Your task to perform on an android device: Open the map Image 0: 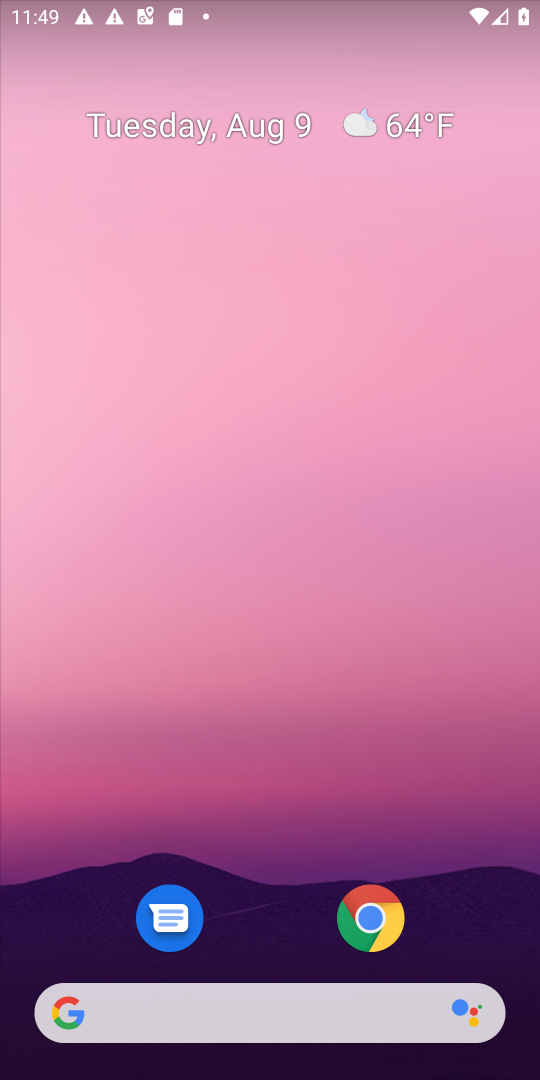
Step 0: drag from (278, 821) to (376, 178)
Your task to perform on an android device: Open the map Image 1: 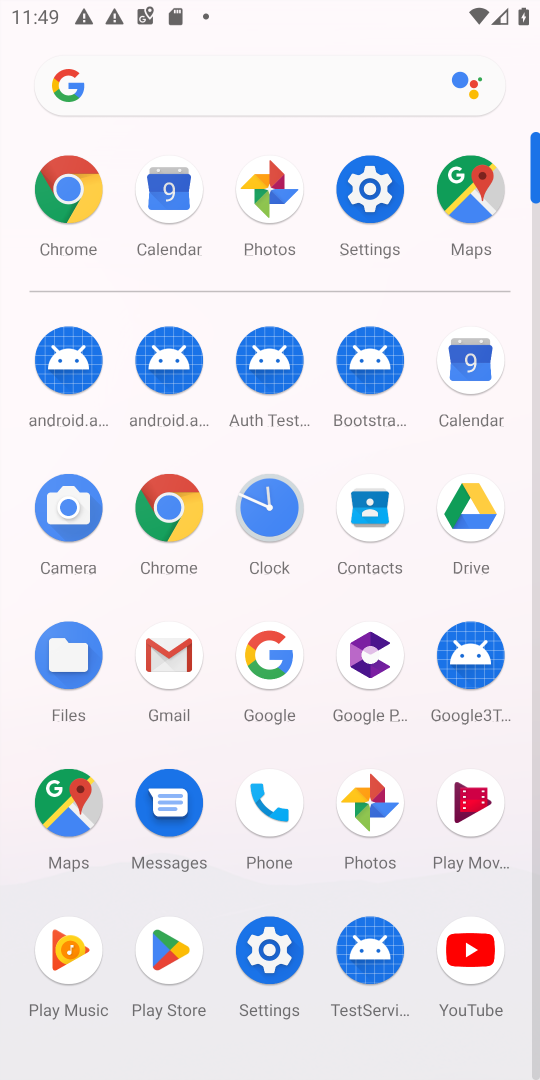
Step 1: click (61, 799)
Your task to perform on an android device: Open the map Image 2: 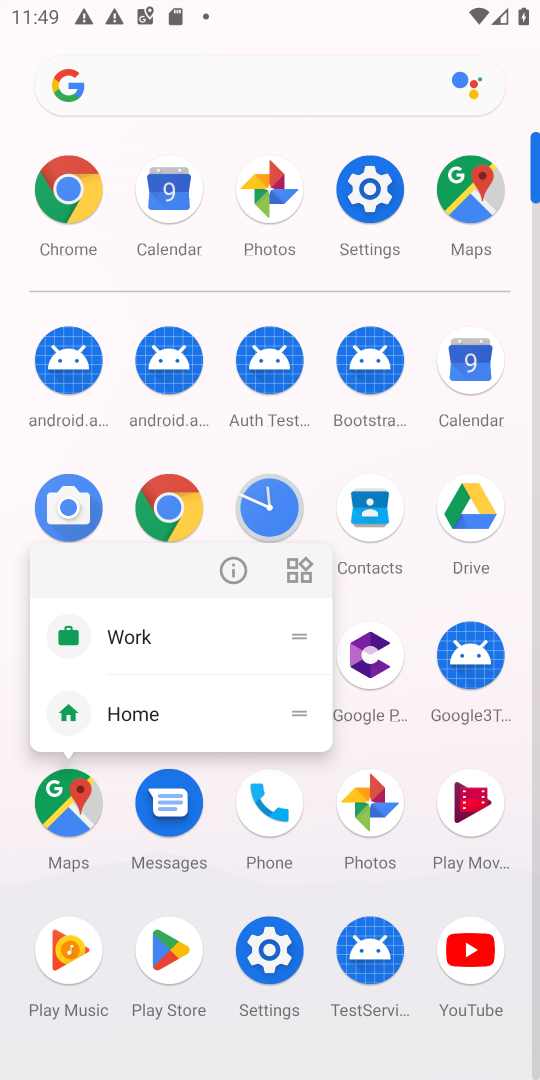
Step 2: click (60, 795)
Your task to perform on an android device: Open the map Image 3: 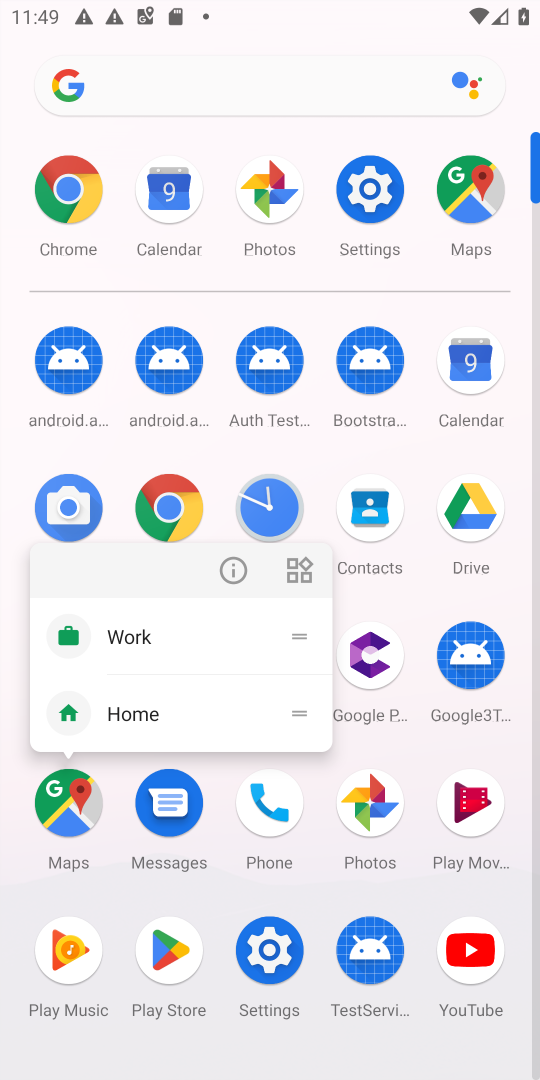
Step 3: click (73, 804)
Your task to perform on an android device: Open the map Image 4: 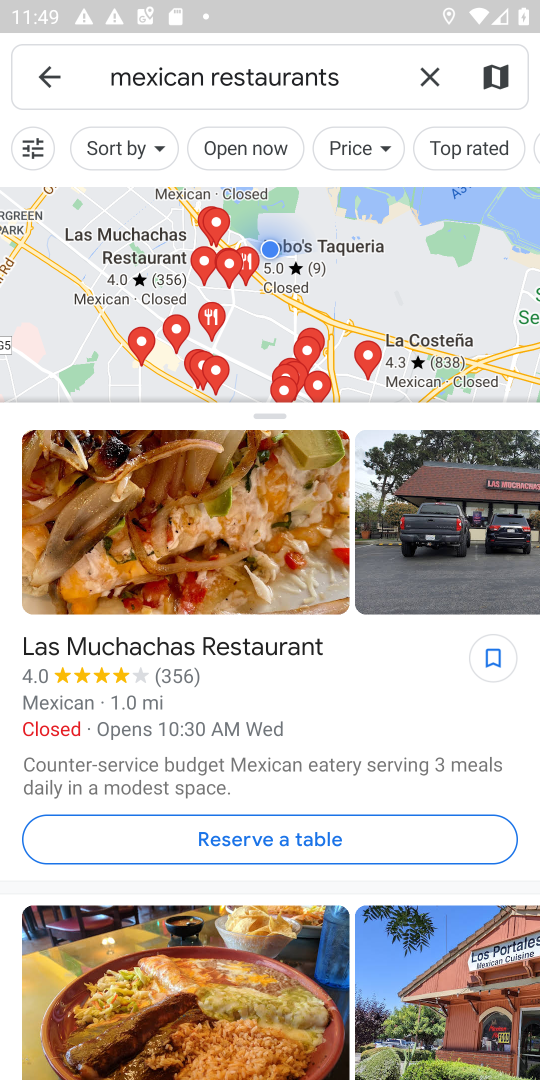
Step 4: task complete